Your task to perform on an android device: turn smart compose on in the gmail app Image 0: 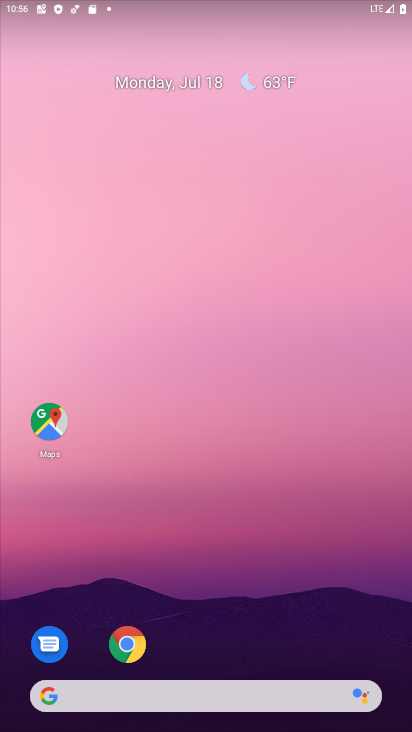
Step 0: drag from (222, 613) to (181, 173)
Your task to perform on an android device: turn smart compose on in the gmail app Image 1: 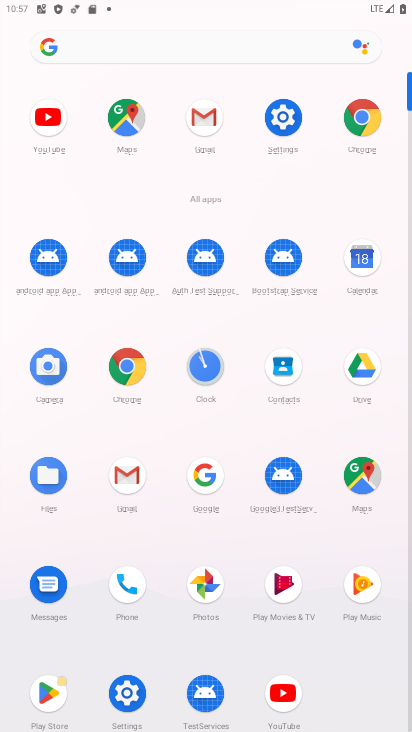
Step 1: click (121, 474)
Your task to perform on an android device: turn smart compose on in the gmail app Image 2: 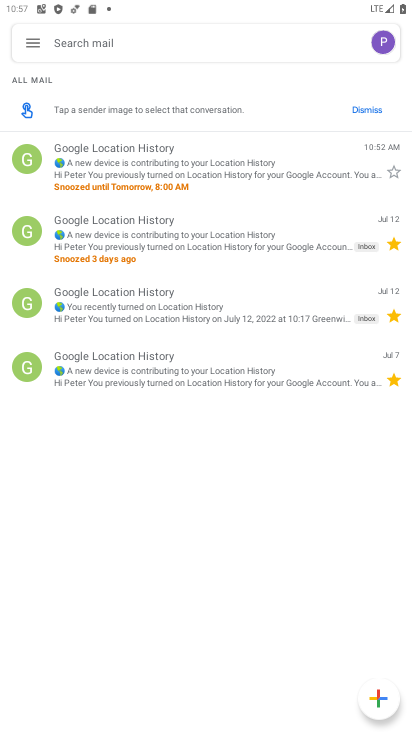
Step 2: click (47, 46)
Your task to perform on an android device: turn smart compose on in the gmail app Image 3: 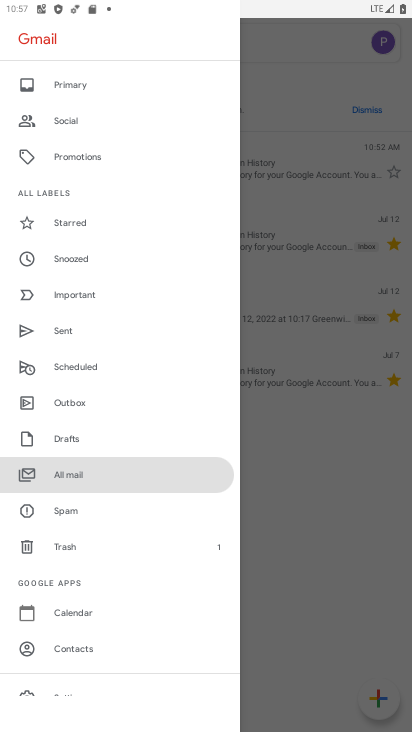
Step 3: click (73, 692)
Your task to perform on an android device: turn smart compose on in the gmail app Image 4: 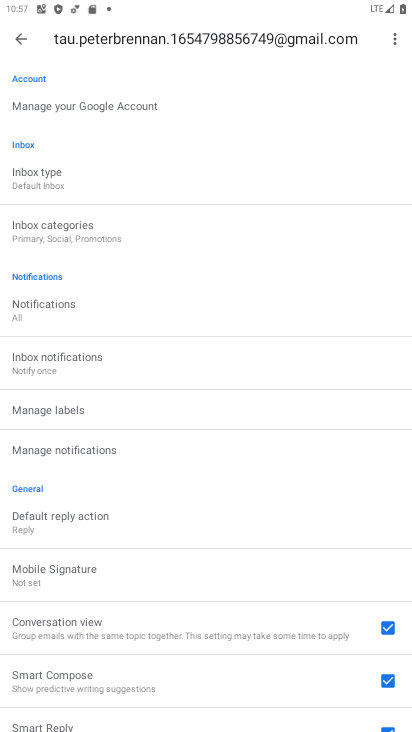
Step 4: task complete